Your task to perform on an android device: What's the weather going to be tomorrow? Image 0: 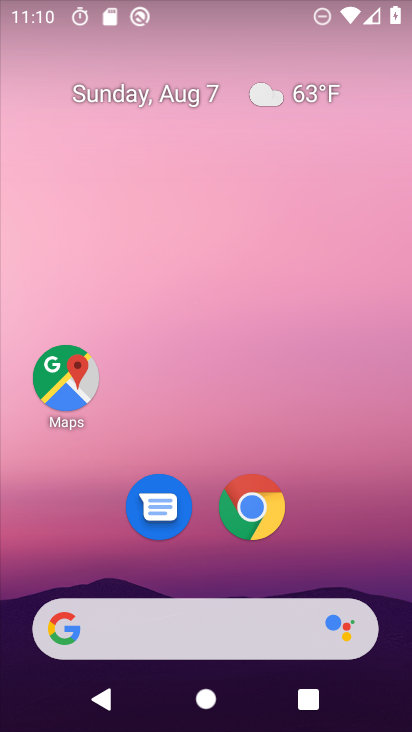
Step 0: drag from (319, 498) to (262, 71)
Your task to perform on an android device: What's the weather going to be tomorrow? Image 1: 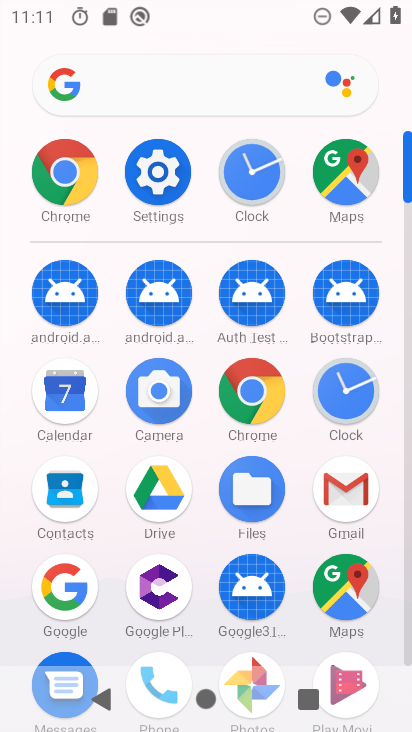
Step 1: click (247, 388)
Your task to perform on an android device: What's the weather going to be tomorrow? Image 2: 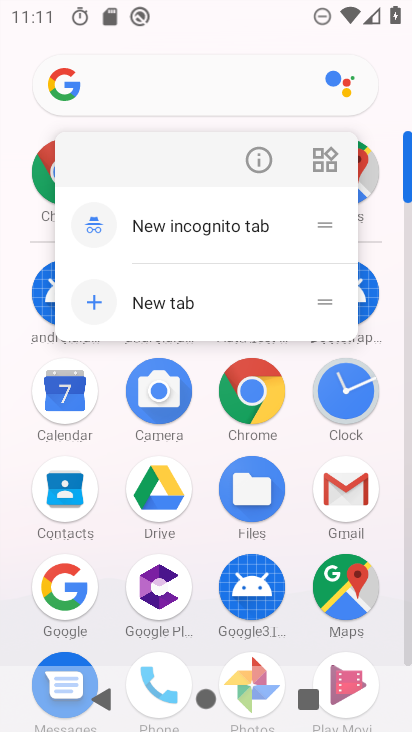
Step 2: click (255, 391)
Your task to perform on an android device: What's the weather going to be tomorrow? Image 3: 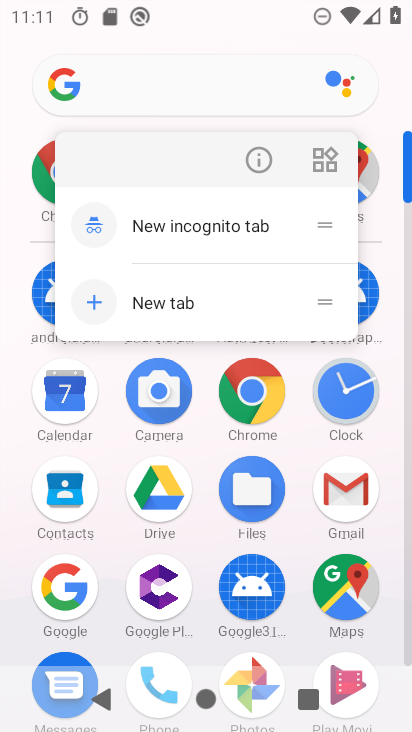
Step 3: click (249, 395)
Your task to perform on an android device: What's the weather going to be tomorrow? Image 4: 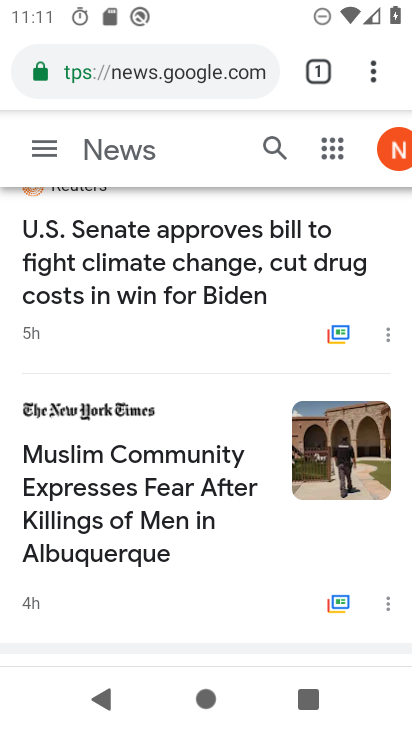
Step 4: click (177, 77)
Your task to perform on an android device: What's the weather going to be tomorrow? Image 5: 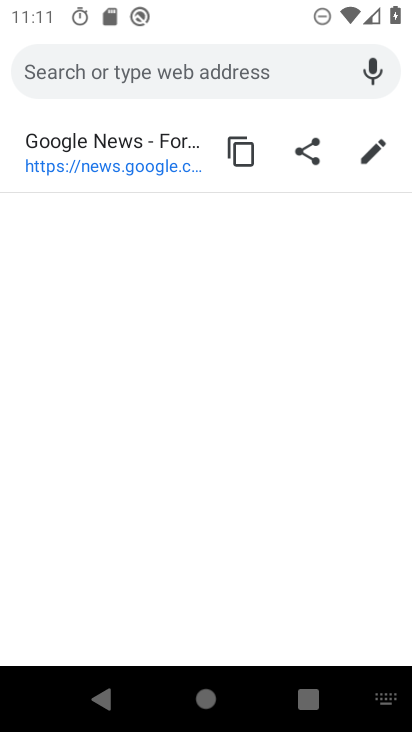
Step 5: type "weather"
Your task to perform on an android device: What's the weather going to be tomorrow? Image 6: 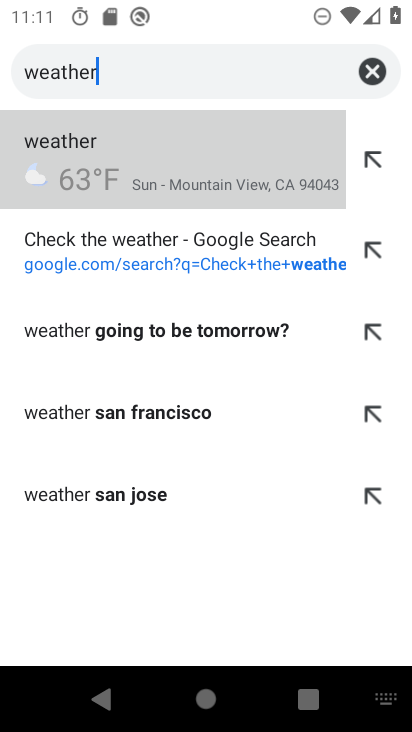
Step 6: click (187, 138)
Your task to perform on an android device: What's the weather going to be tomorrow? Image 7: 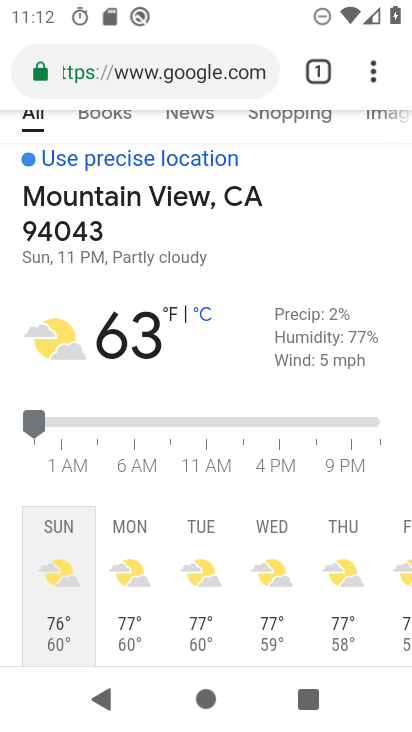
Step 7: click (118, 584)
Your task to perform on an android device: What's the weather going to be tomorrow? Image 8: 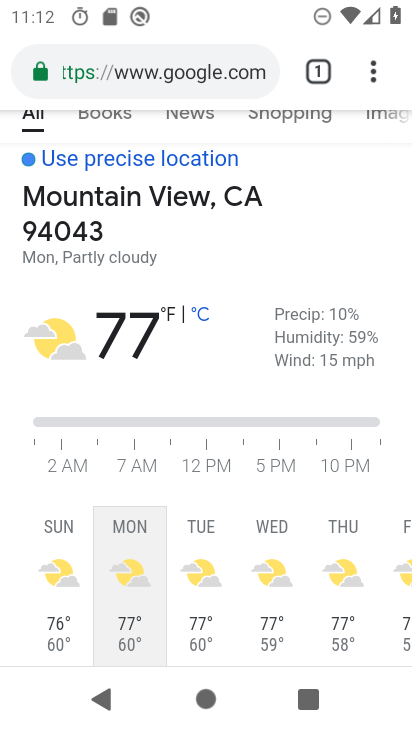
Step 8: task complete